Your task to perform on an android device: change the upload size in google photos Image 0: 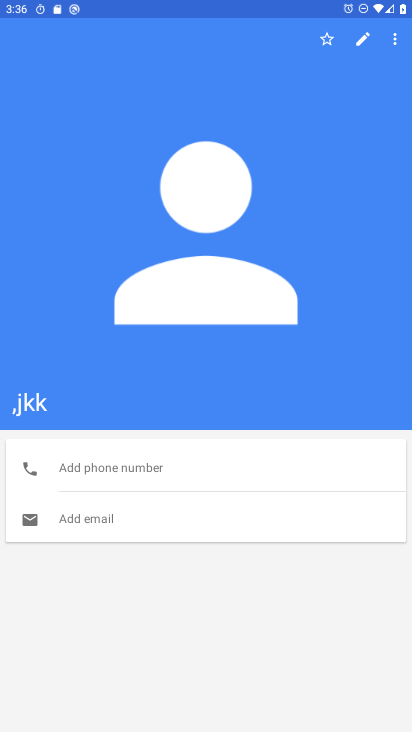
Step 0: press home button
Your task to perform on an android device: change the upload size in google photos Image 1: 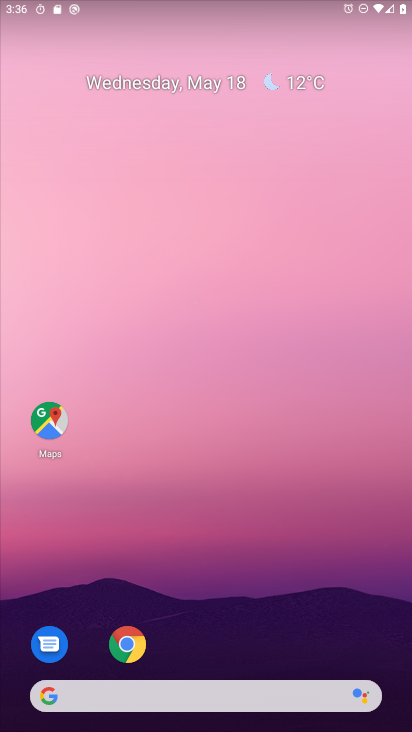
Step 1: click (374, 216)
Your task to perform on an android device: change the upload size in google photos Image 2: 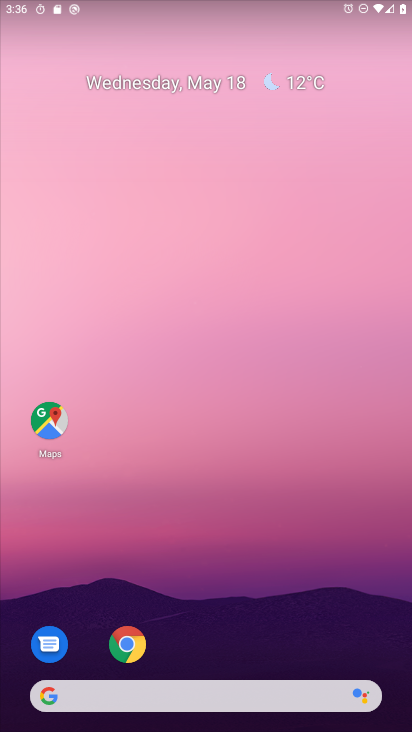
Step 2: drag from (388, 670) to (410, 175)
Your task to perform on an android device: change the upload size in google photos Image 3: 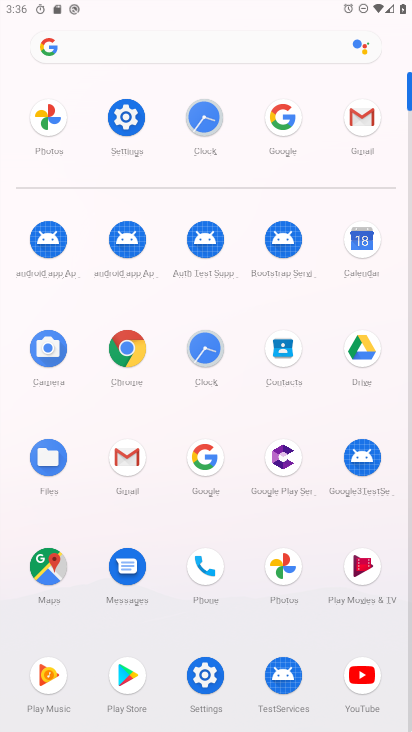
Step 3: click (287, 572)
Your task to perform on an android device: change the upload size in google photos Image 4: 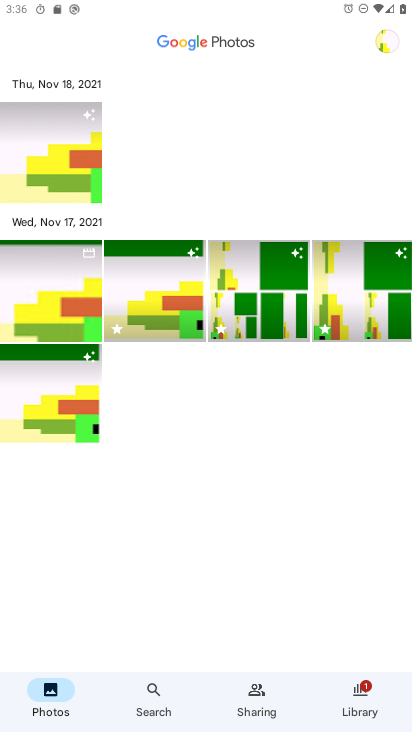
Step 4: click (391, 39)
Your task to perform on an android device: change the upload size in google photos Image 5: 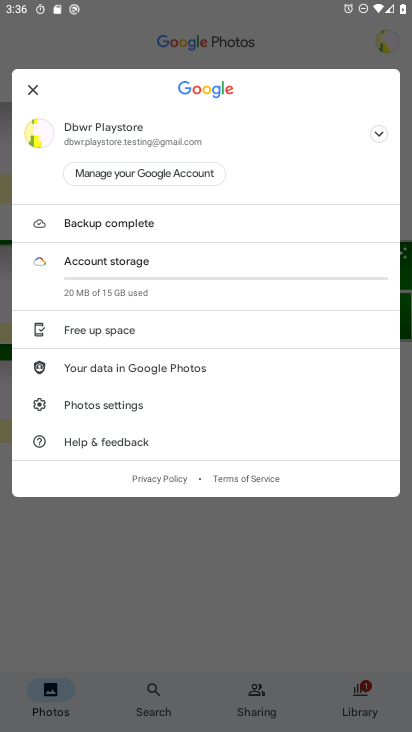
Step 5: task complete